Your task to perform on an android device: turn on the 12-hour format for clock Image 0: 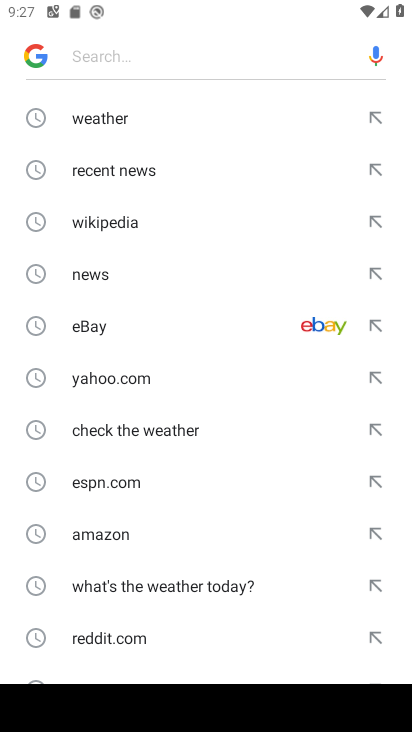
Step 0: press home button
Your task to perform on an android device: turn on the 12-hour format for clock Image 1: 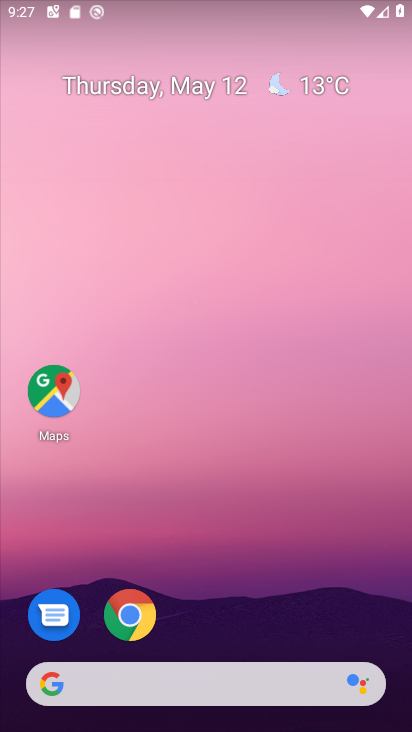
Step 1: drag from (245, 541) to (138, 90)
Your task to perform on an android device: turn on the 12-hour format for clock Image 2: 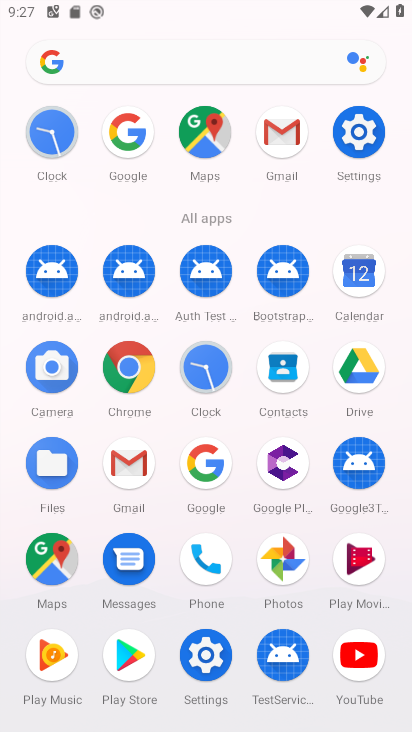
Step 2: click (205, 371)
Your task to perform on an android device: turn on the 12-hour format for clock Image 3: 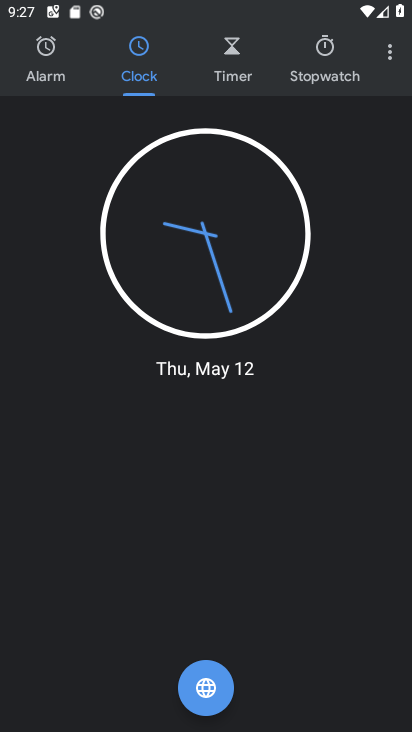
Step 3: click (390, 53)
Your task to perform on an android device: turn on the 12-hour format for clock Image 4: 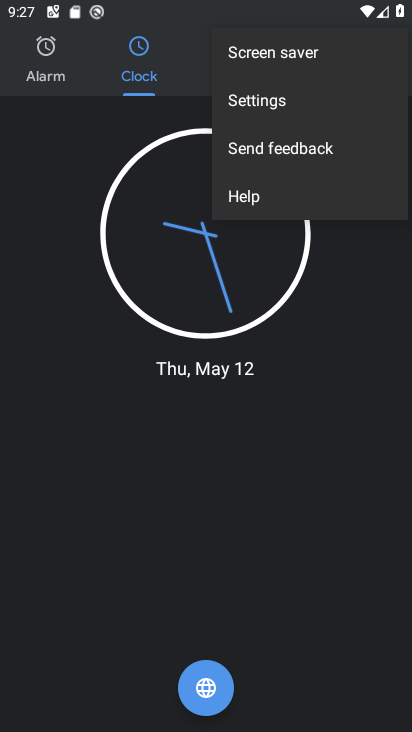
Step 4: click (279, 107)
Your task to perform on an android device: turn on the 12-hour format for clock Image 5: 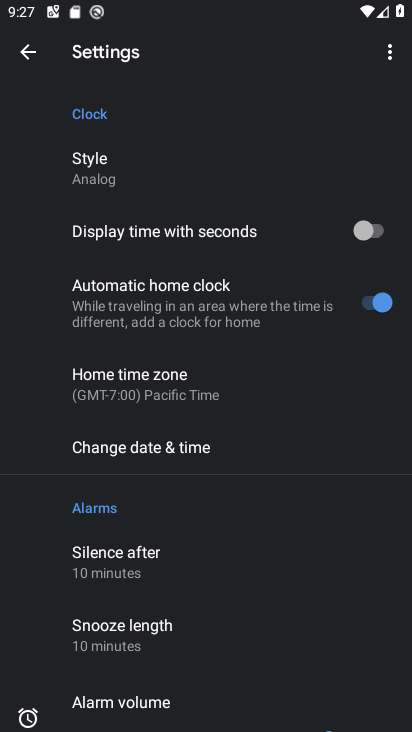
Step 5: click (173, 452)
Your task to perform on an android device: turn on the 12-hour format for clock Image 6: 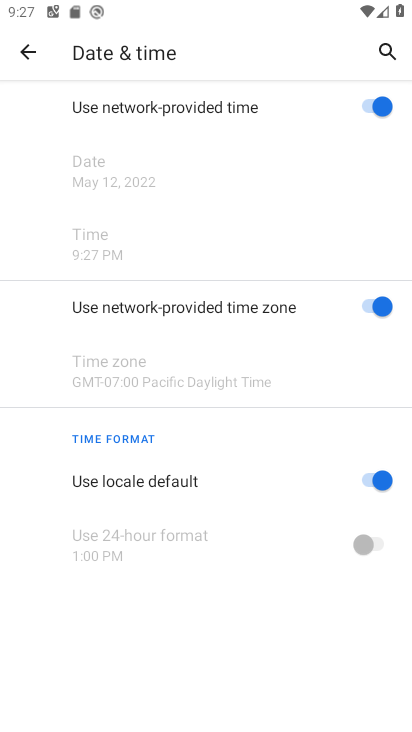
Step 6: task complete